Your task to perform on an android device: Show me recent news Image 0: 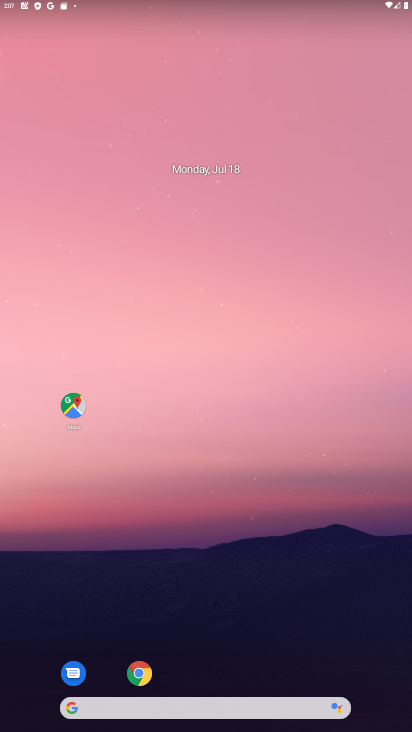
Step 0: drag from (174, 700) to (232, 376)
Your task to perform on an android device: Show me recent news Image 1: 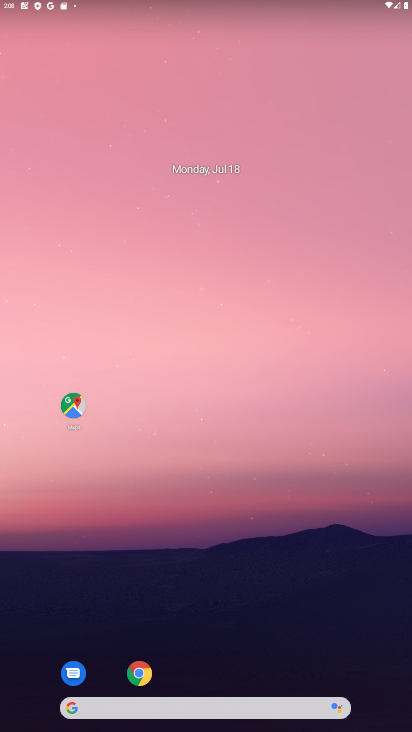
Step 1: drag from (176, 707) to (133, 141)
Your task to perform on an android device: Show me recent news Image 2: 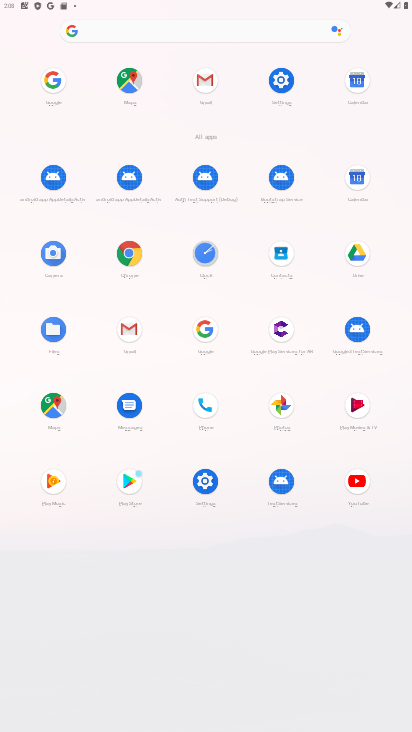
Step 2: click (205, 332)
Your task to perform on an android device: Show me recent news Image 3: 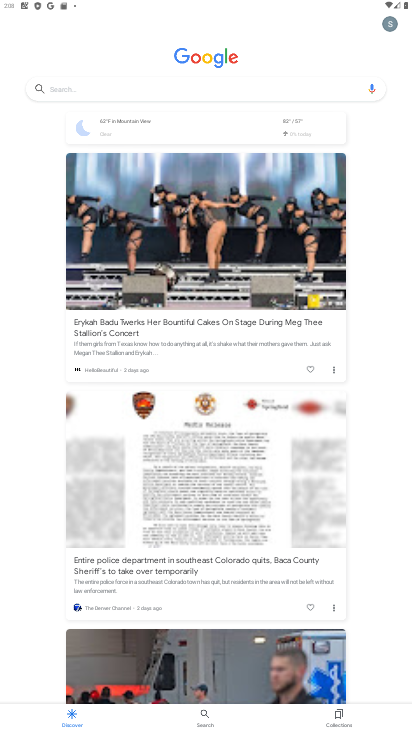
Step 3: click (156, 89)
Your task to perform on an android device: Show me recent news Image 4: 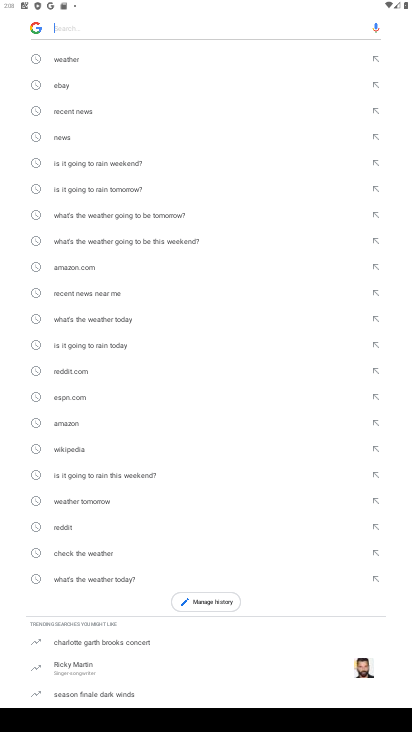
Step 4: click (85, 116)
Your task to perform on an android device: Show me recent news Image 5: 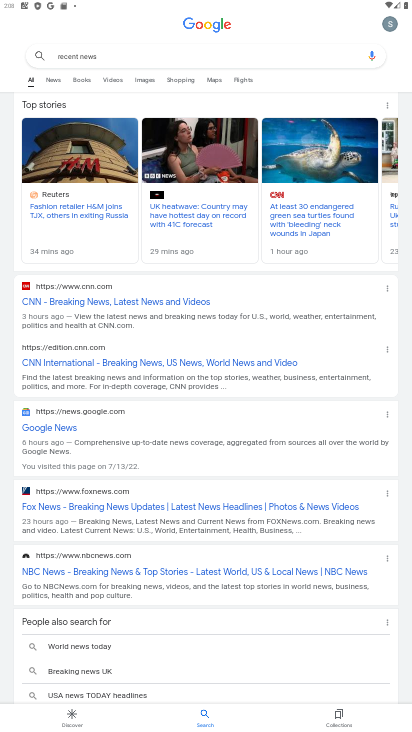
Step 5: click (83, 214)
Your task to perform on an android device: Show me recent news Image 6: 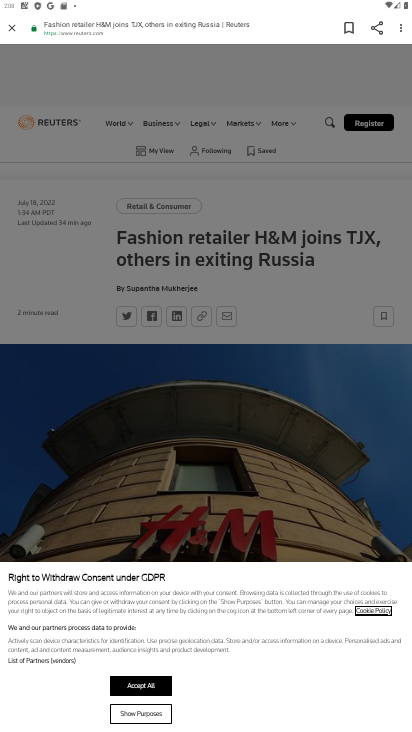
Step 6: task complete